Your task to perform on an android device: stop showing notifications on the lock screen Image 0: 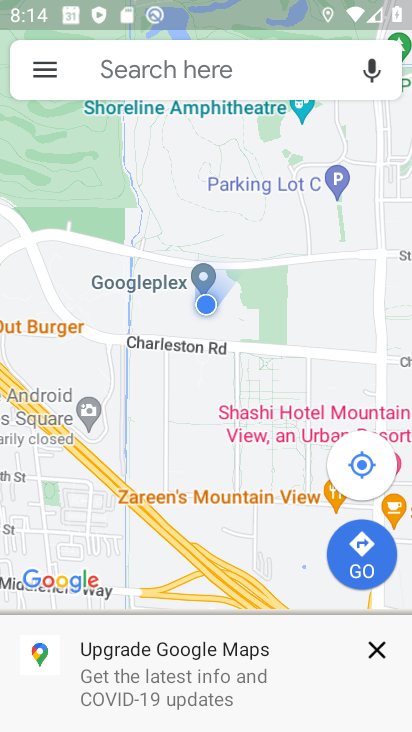
Step 0: press home button
Your task to perform on an android device: stop showing notifications on the lock screen Image 1: 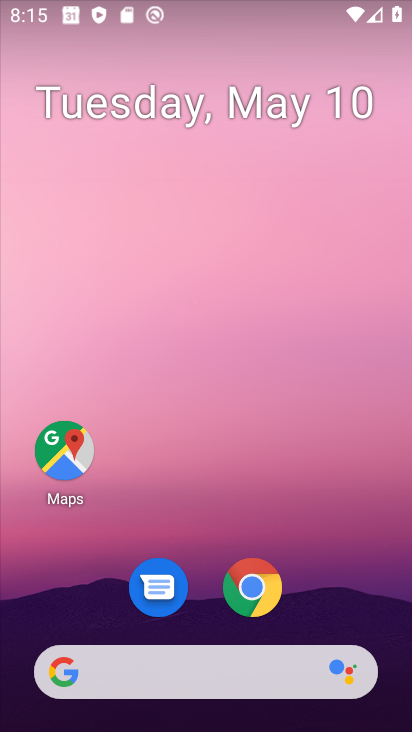
Step 1: drag from (374, 538) to (310, 145)
Your task to perform on an android device: stop showing notifications on the lock screen Image 2: 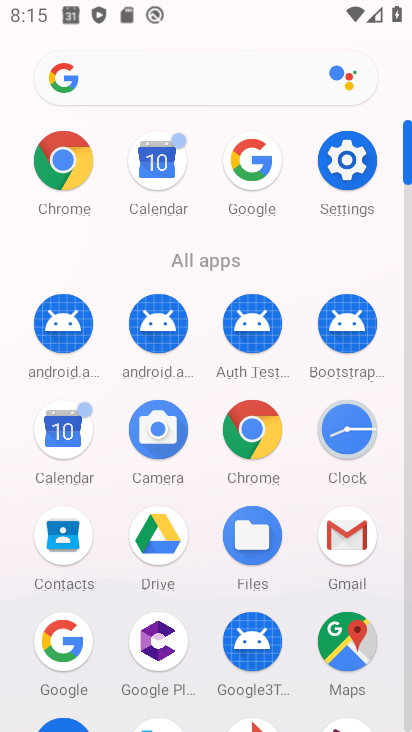
Step 2: click (346, 183)
Your task to perform on an android device: stop showing notifications on the lock screen Image 3: 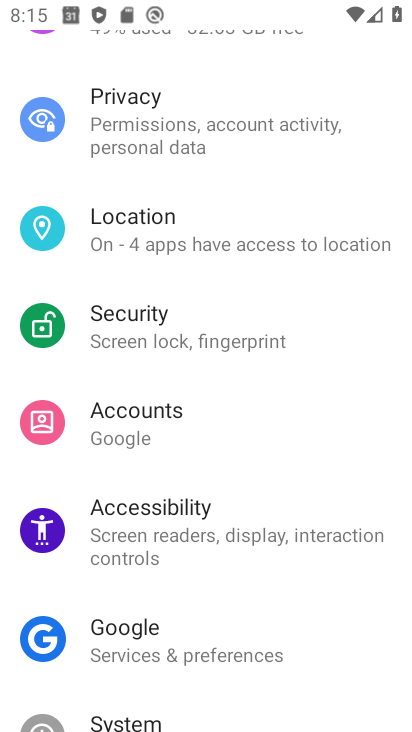
Step 3: drag from (194, 331) to (210, 525)
Your task to perform on an android device: stop showing notifications on the lock screen Image 4: 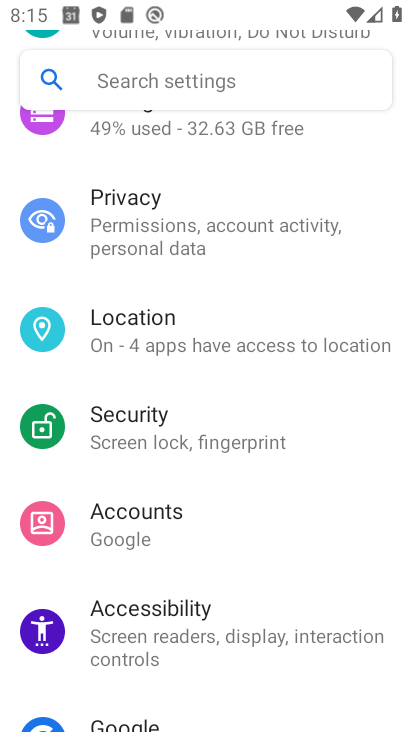
Step 4: drag from (226, 346) to (210, 576)
Your task to perform on an android device: stop showing notifications on the lock screen Image 5: 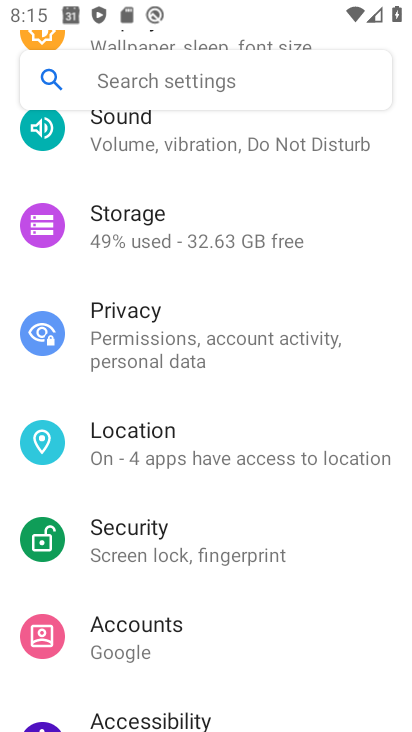
Step 5: drag from (180, 260) to (180, 587)
Your task to perform on an android device: stop showing notifications on the lock screen Image 6: 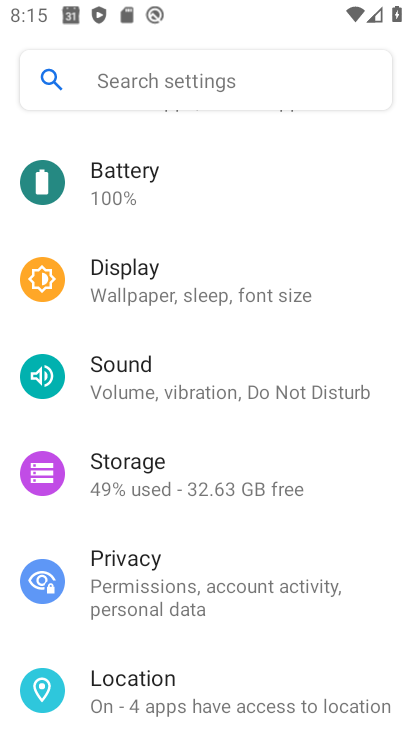
Step 6: drag from (209, 242) to (177, 590)
Your task to perform on an android device: stop showing notifications on the lock screen Image 7: 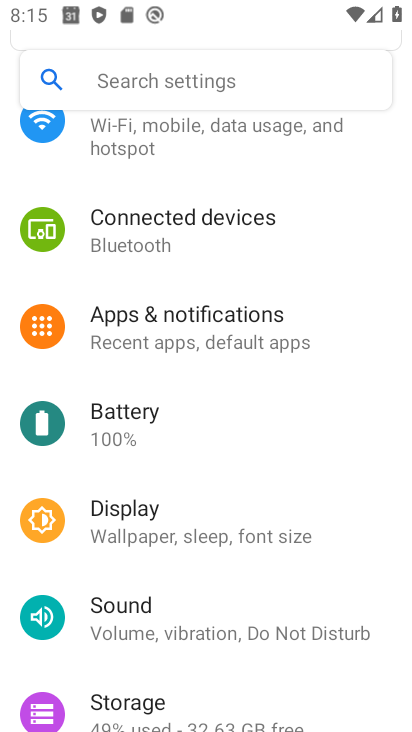
Step 7: drag from (164, 269) to (167, 603)
Your task to perform on an android device: stop showing notifications on the lock screen Image 8: 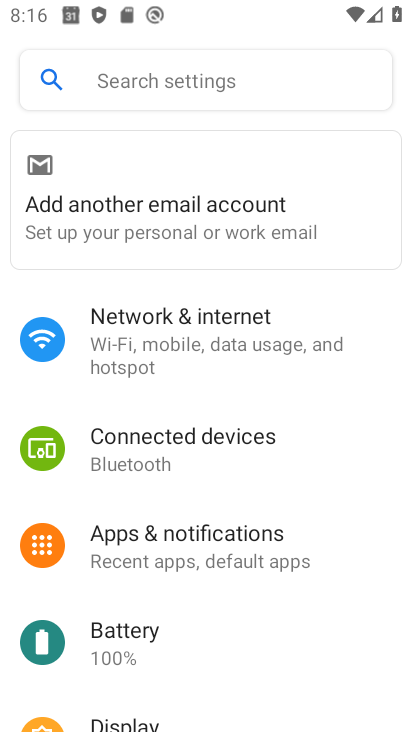
Step 8: click (223, 542)
Your task to perform on an android device: stop showing notifications on the lock screen Image 9: 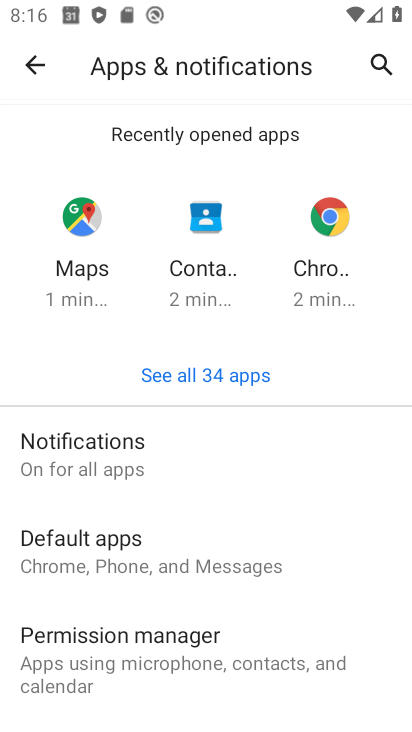
Step 9: click (74, 444)
Your task to perform on an android device: stop showing notifications on the lock screen Image 10: 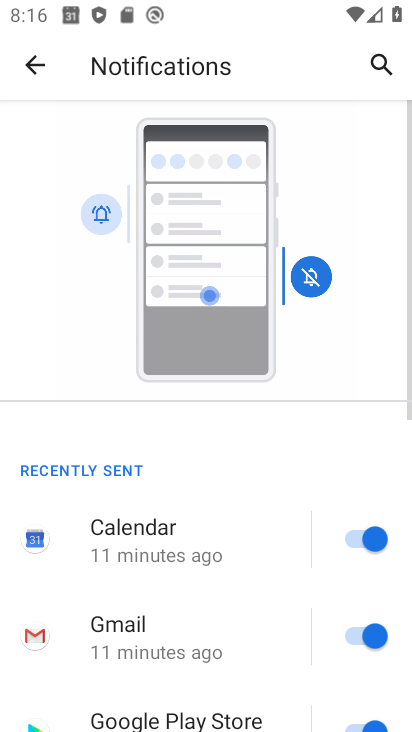
Step 10: drag from (109, 620) to (169, 242)
Your task to perform on an android device: stop showing notifications on the lock screen Image 11: 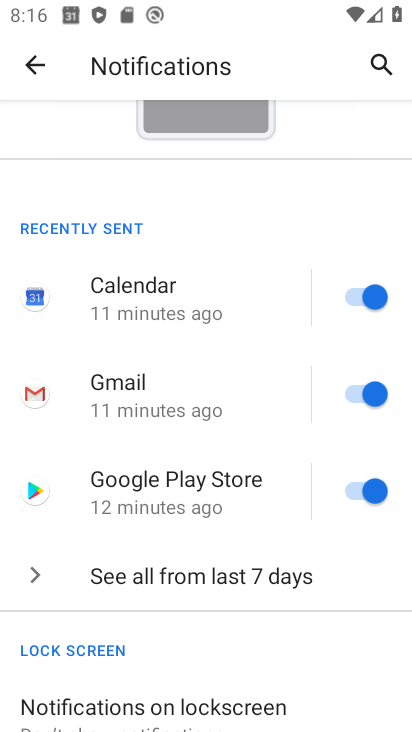
Step 11: drag from (185, 607) to (272, 269)
Your task to perform on an android device: stop showing notifications on the lock screen Image 12: 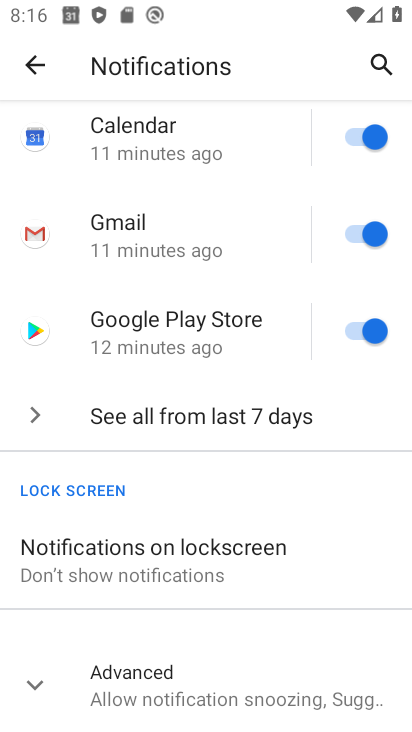
Step 12: click (180, 560)
Your task to perform on an android device: stop showing notifications on the lock screen Image 13: 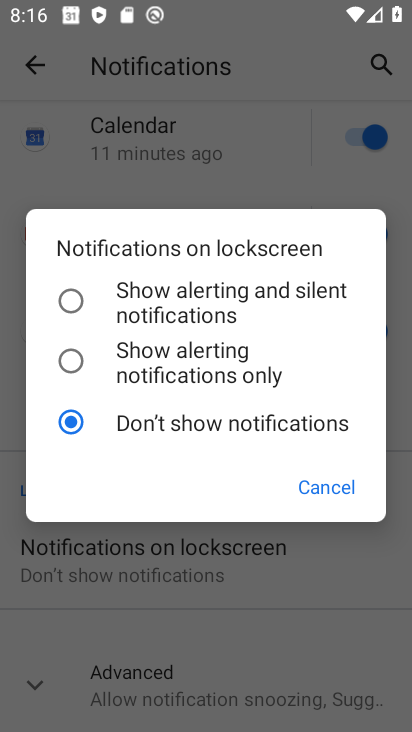
Step 13: task complete